Your task to perform on an android device: Open calendar and show me the fourth week of next month Image 0: 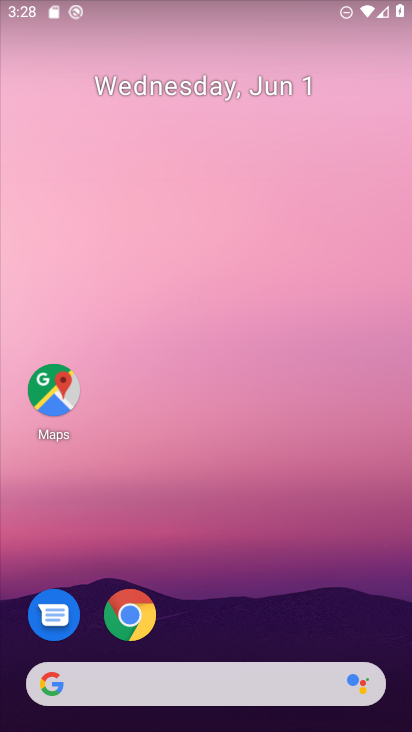
Step 0: press home button
Your task to perform on an android device: Open calendar and show me the fourth week of next month Image 1: 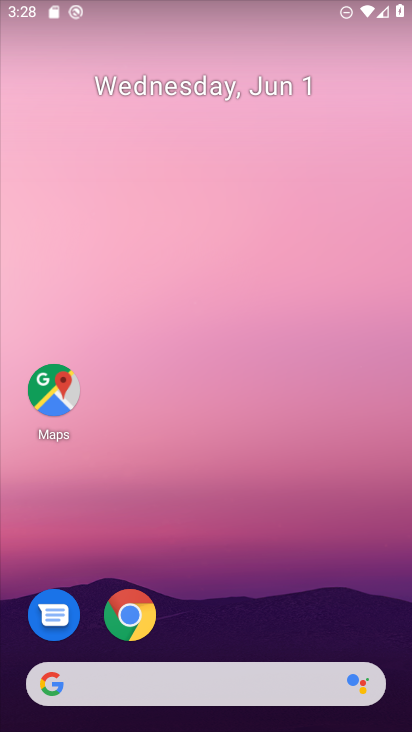
Step 1: drag from (229, 637) to (234, 131)
Your task to perform on an android device: Open calendar and show me the fourth week of next month Image 2: 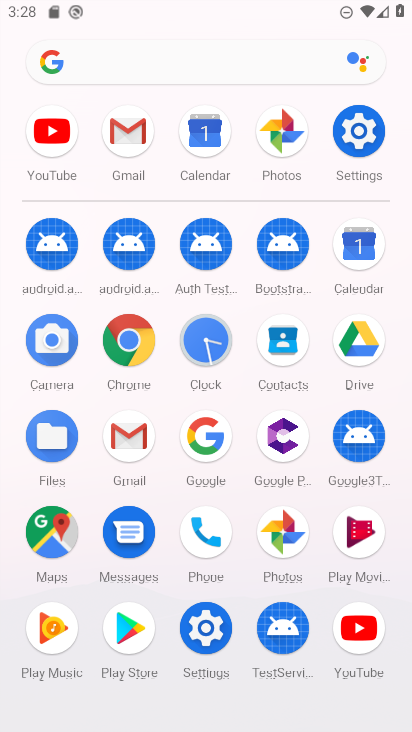
Step 2: click (355, 240)
Your task to perform on an android device: Open calendar and show me the fourth week of next month Image 3: 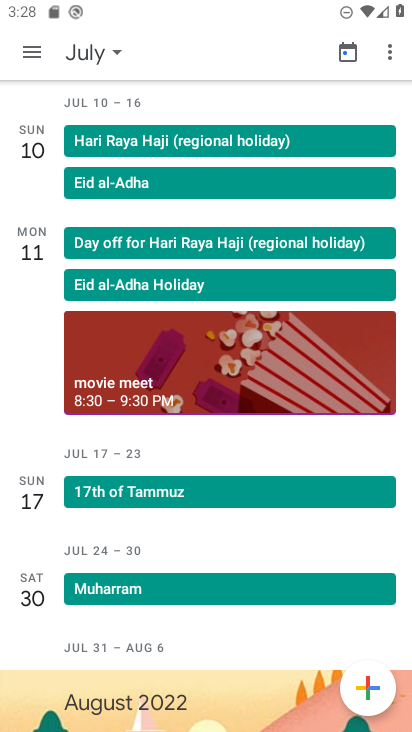
Step 3: click (32, 47)
Your task to perform on an android device: Open calendar and show me the fourth week of next month Image 4: 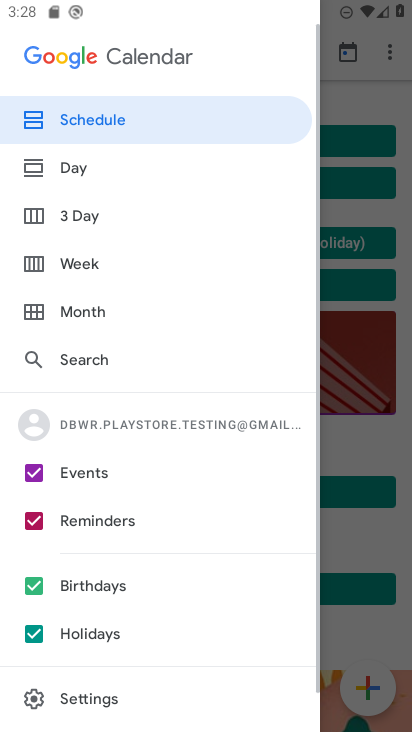
Step 4: click (85, 268)
Your task to perform on an android device: Open calendar and show me the fourth week of next month Image 5: 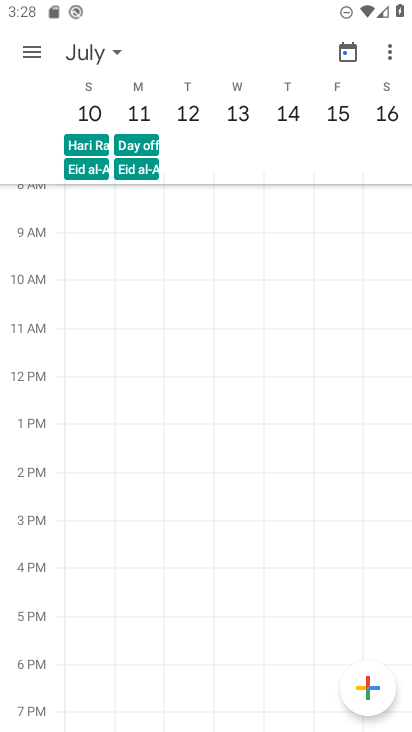
Step 5: drag from (388, 109) to (6, 117)
Your task to perform on an android device: Open calendar and show me the fourth week of next month Image 6: 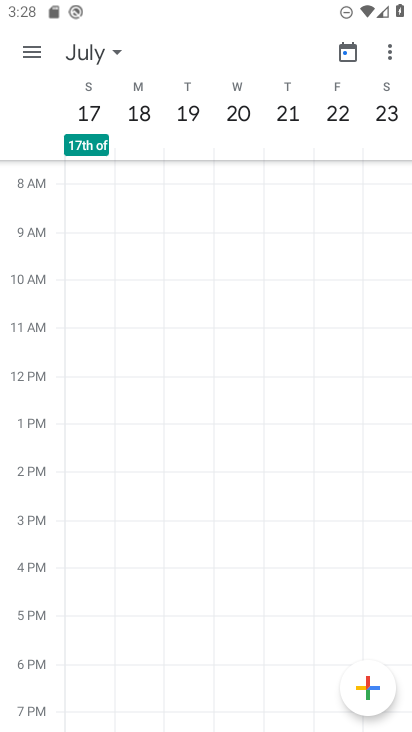
Step 6: drag from (380, 109) to (95, 114)
Your task to perform on an android device: Open calendar and show me the fourth week of next month Image 7: 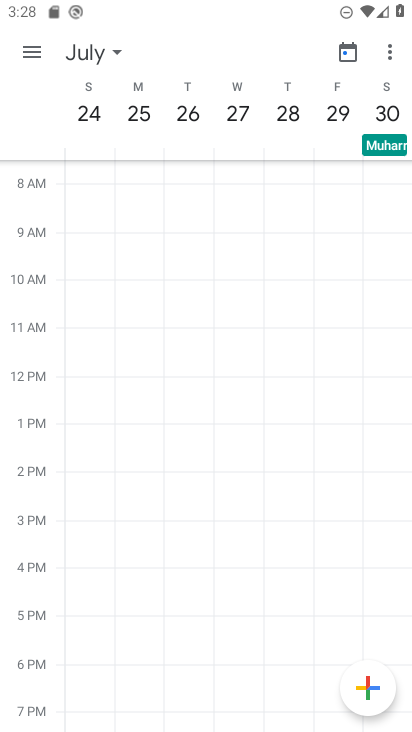
Step 7: click (86, 108)
Your task to perform on an android device: Open calendar and show me the fourth week of next month Image 8: 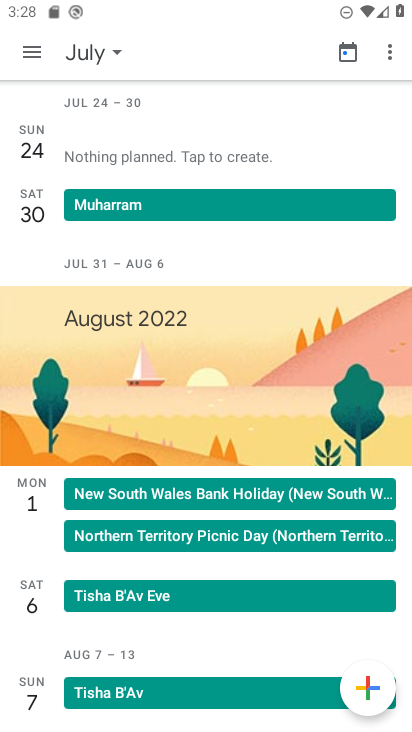
Step 8: task complete